Your task to perform on an android device: Add "usb-c to usb-a" to the cart on ebay.com, then select checkout. Image 0: 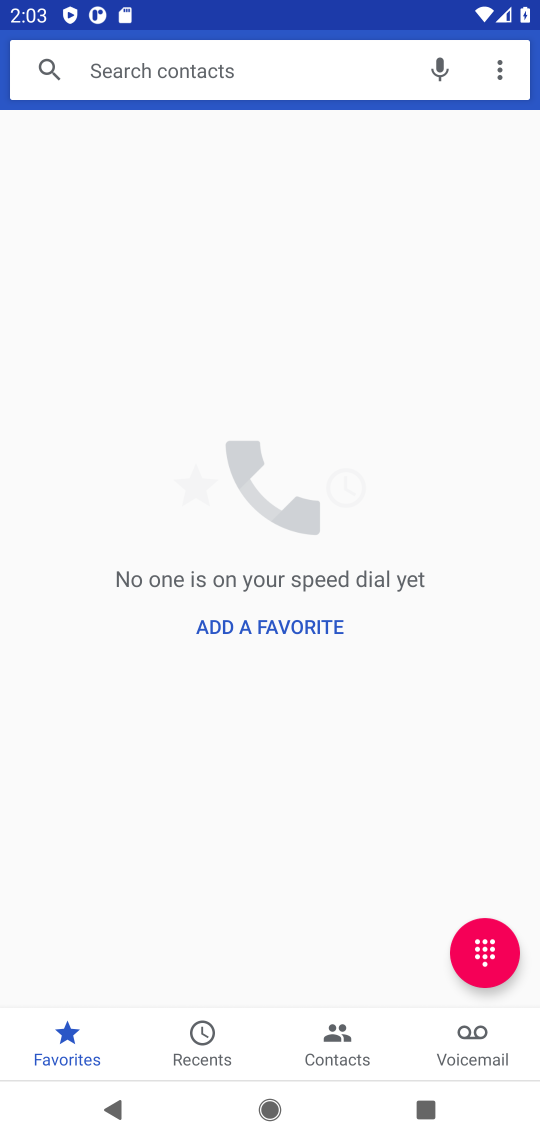
Step 0: press home button
Your task to perform on an android device: Add "usb-c to usb-a" to the cart on ebay.com, then select checkout. Image 1: 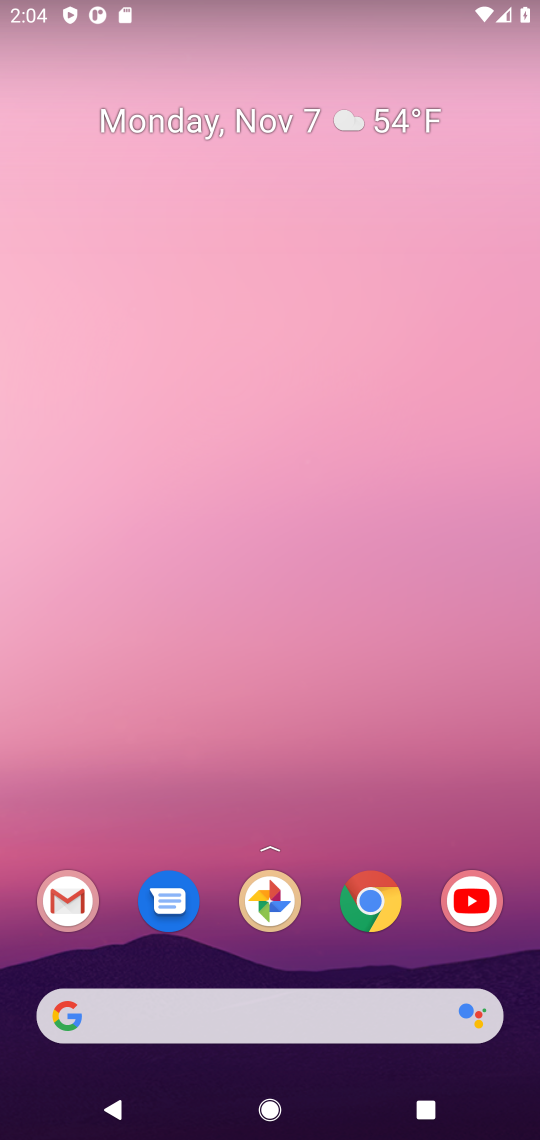
Step 1: click (372, 915)
Your task to perform on an android device: Add "usb-c to usb-a" to the cart on ebay.com, then select checkout. Image 2: 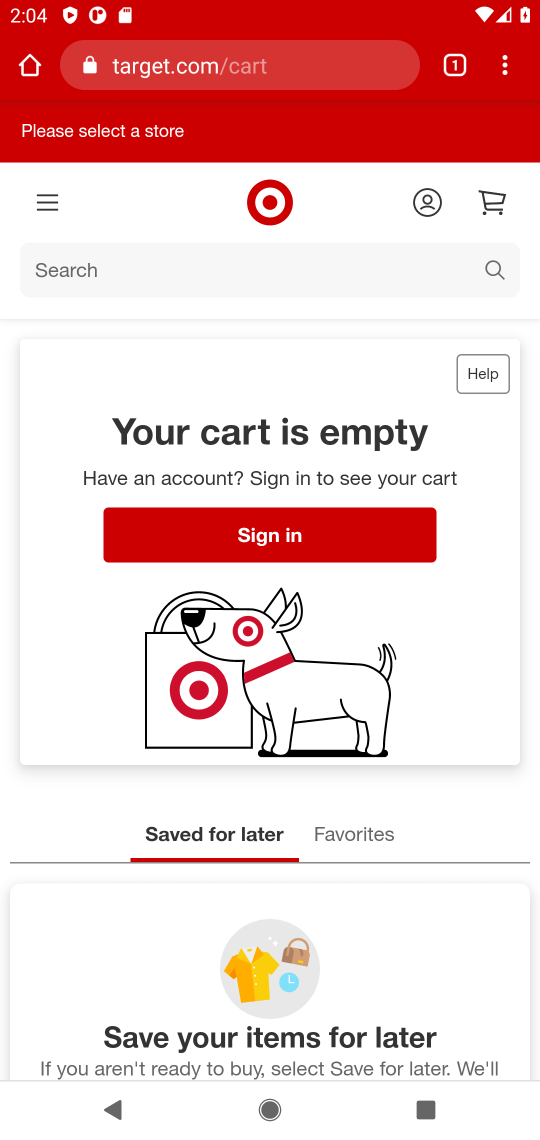
Step 2: click (224, 60)
Your task to perform on an android device: Add "usb-c to usb-a" to the cart on ebay.com, then select checkout. Image 3: 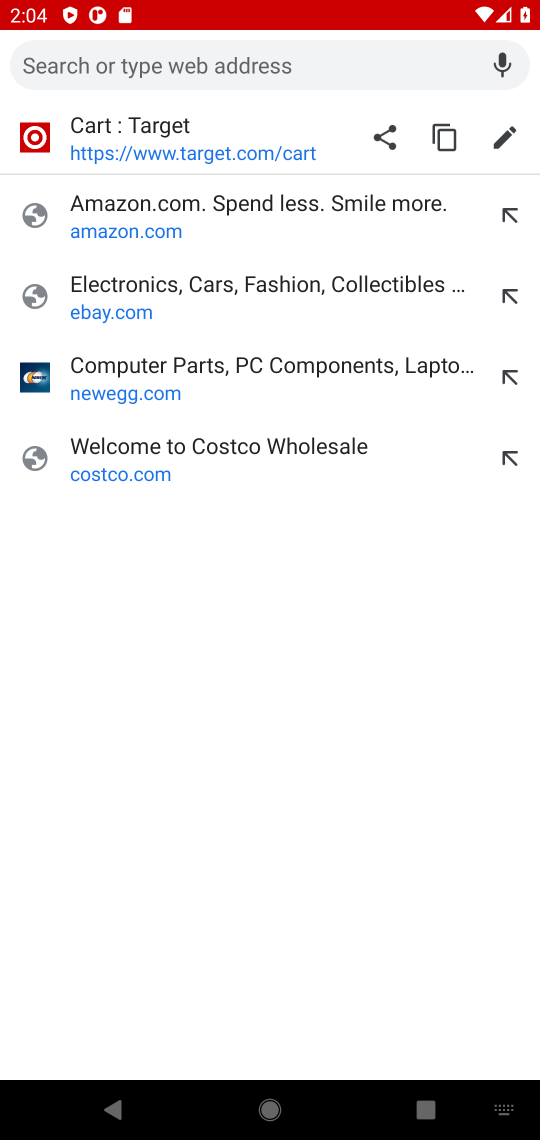
Step 3: type "ebay.com"
Your task to perform on an android device: Add "usb-c to usb-a" to the cart on ebay.com, then select checkout. Image 4: 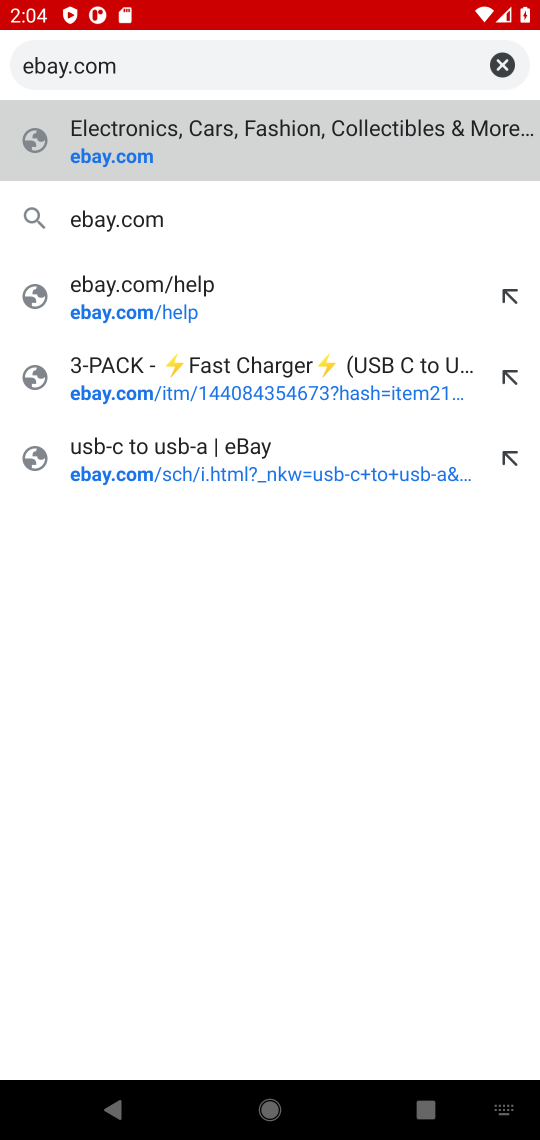
Step 4: click (135, 156)
Your task to perform on an android device: Add "usb-c to usb-a" to the cart on ebay.com, then select checkout. Image 5: 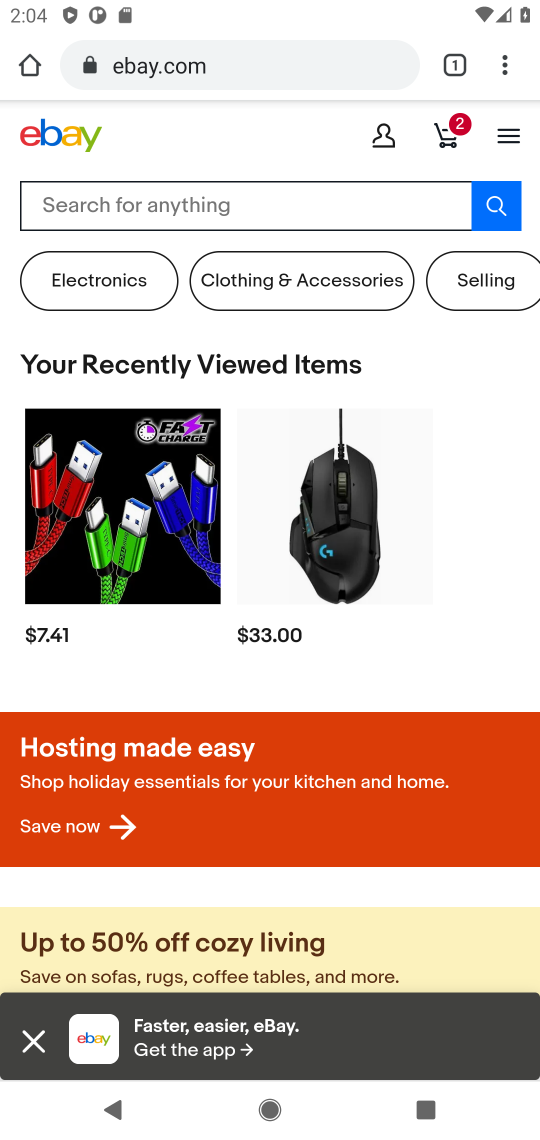
Step 5: click (106, 196)
Your task to perform on an android device: Add "usb-c to usb-a" to the cart on ebay.com, then select checkout. Image 6: 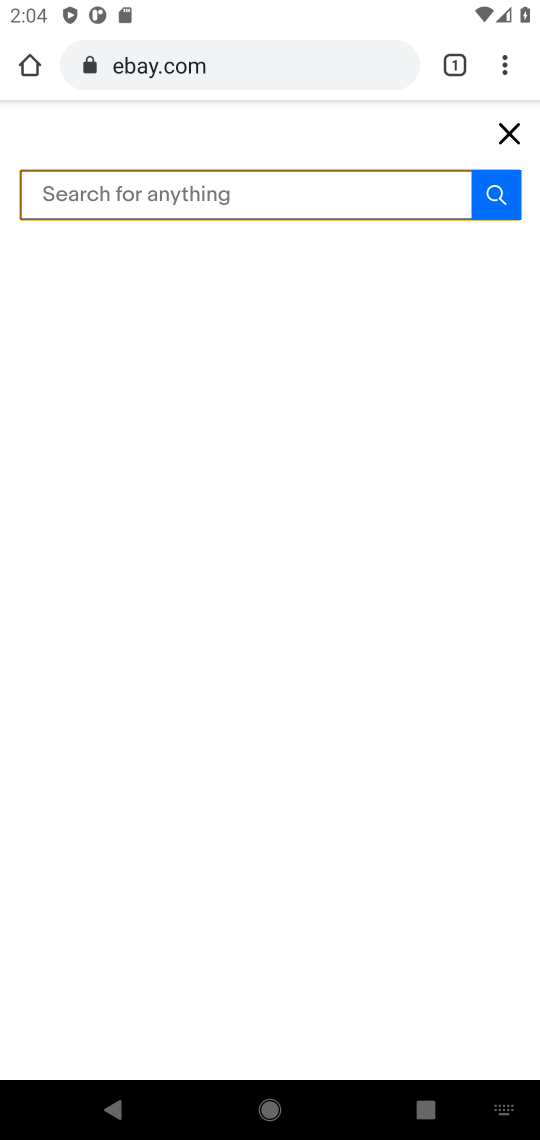
Step 6: type "usb-c to usb-a"
Your task to perform on an android device: Add "usb-c to usb-a" to the cart on ebay.com, then select checkout. Image 7: 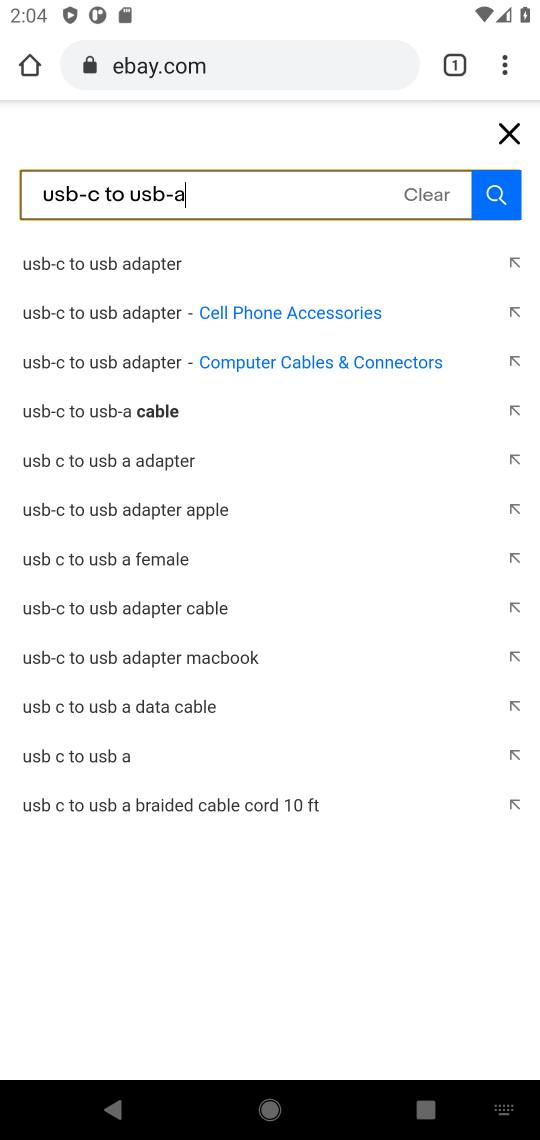
Step 7: click (494, 194)
Your task to perform on an android device: Add "usb-c to usb-a" to the cart on ebay.com, then select checkout. Image 8: 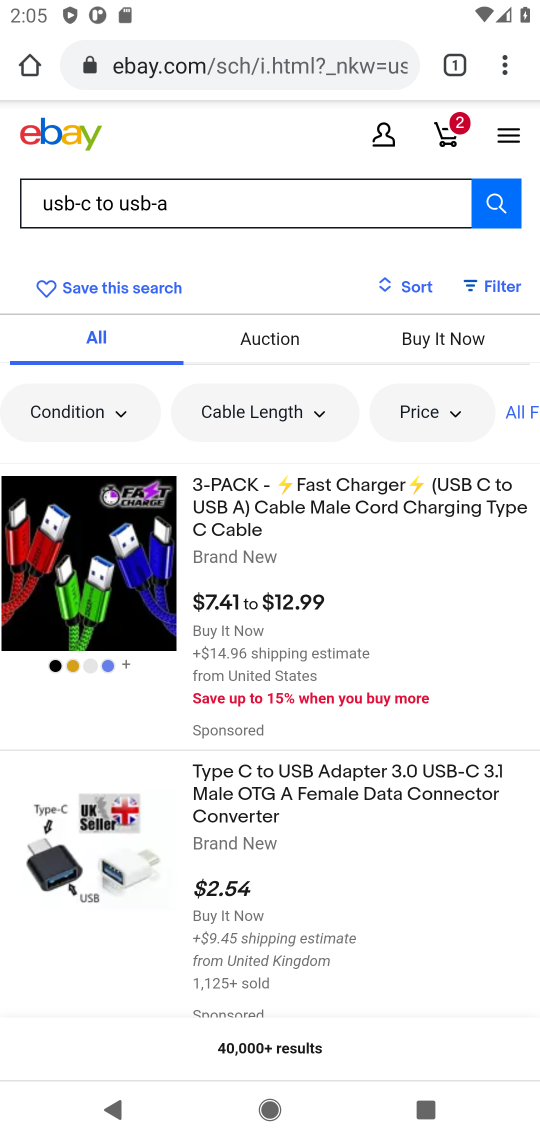
Step 8: click (71, 585)
Your task to perform on an android device: Add "usb-c to usb-a" to the cart on ebay.com, then select checkout. Image 9: 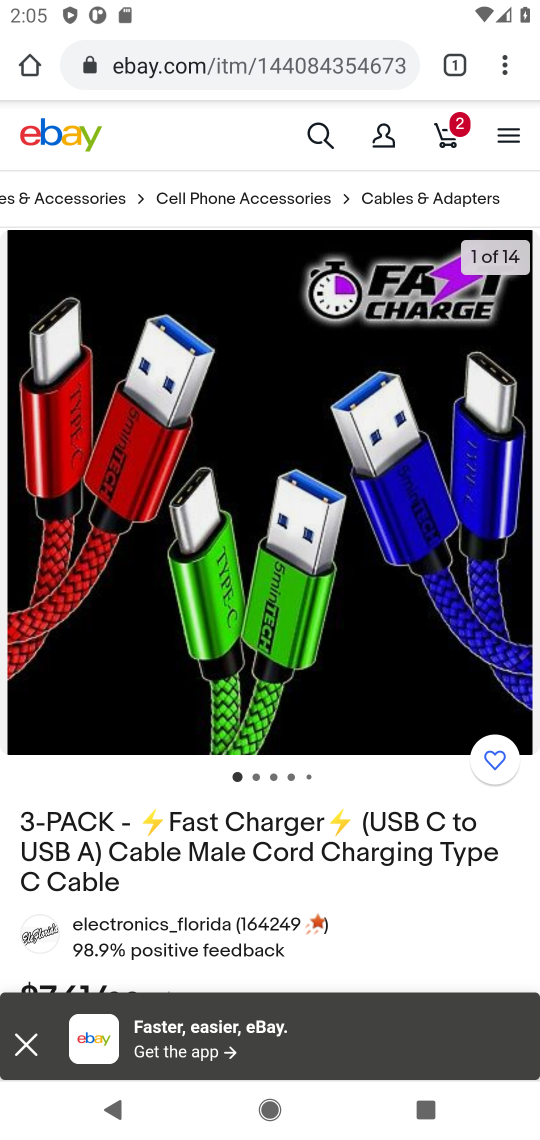
Step 9: drag from (261, 828) to (281, 347)
Your task to perform on an android device: Add "usb-c to usb-a" to the cart on ebay.com, then select checkout. Image 10: 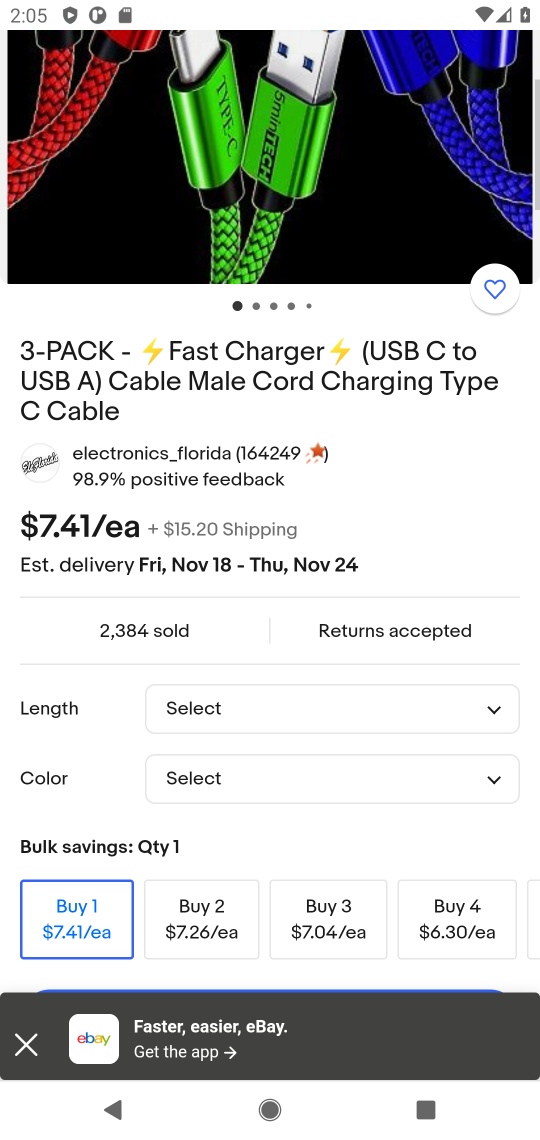
Step 10: drag from (245, 872) to (261, 361)
Your task to perform on an android device: Add "usb-c to usb-a" to the cart on ebay.com, then select checkout. Image 11: 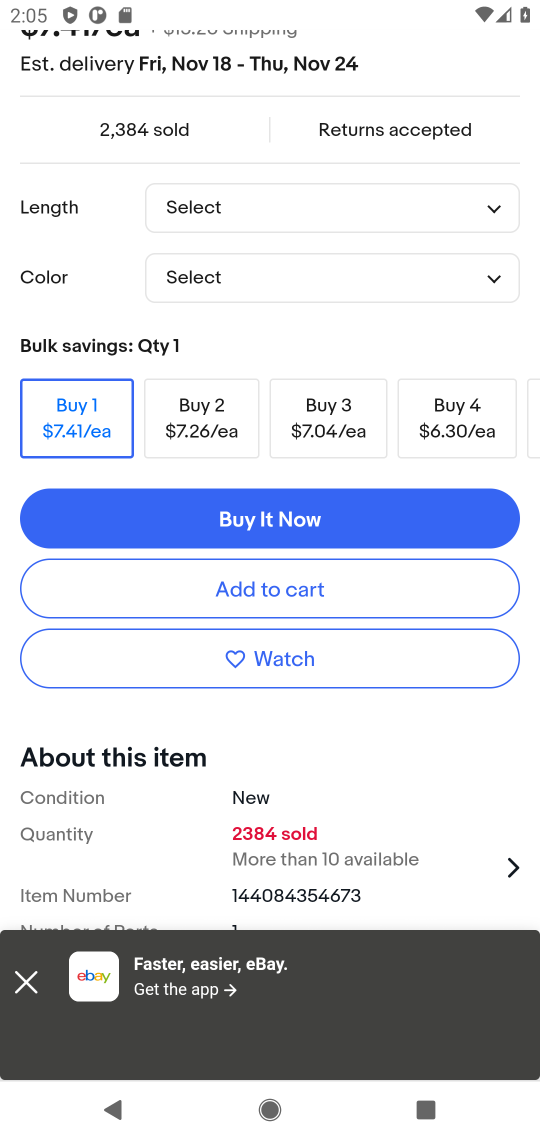
Step 11: click (232, 589)
Your task to perform on an android device: Add "usb-c to usb-a" to the cart on ebay.com, then select checkout. Image 12: 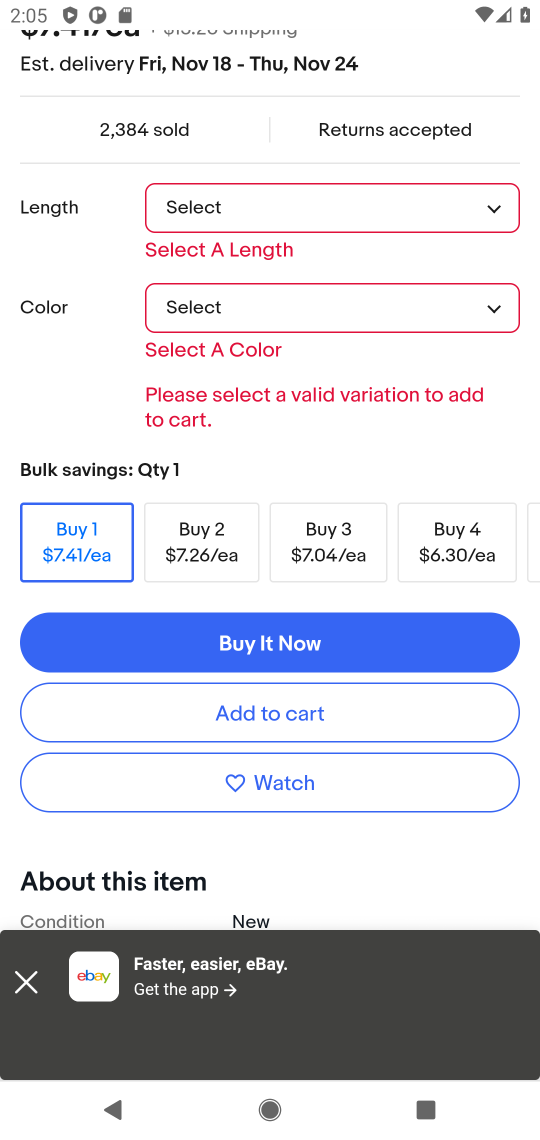
Step 12: click (498, 311)
Your task to perform on an android device: Add "usb-c to usb-a" to the cart on ebay.com, then select checkout. Image 13: 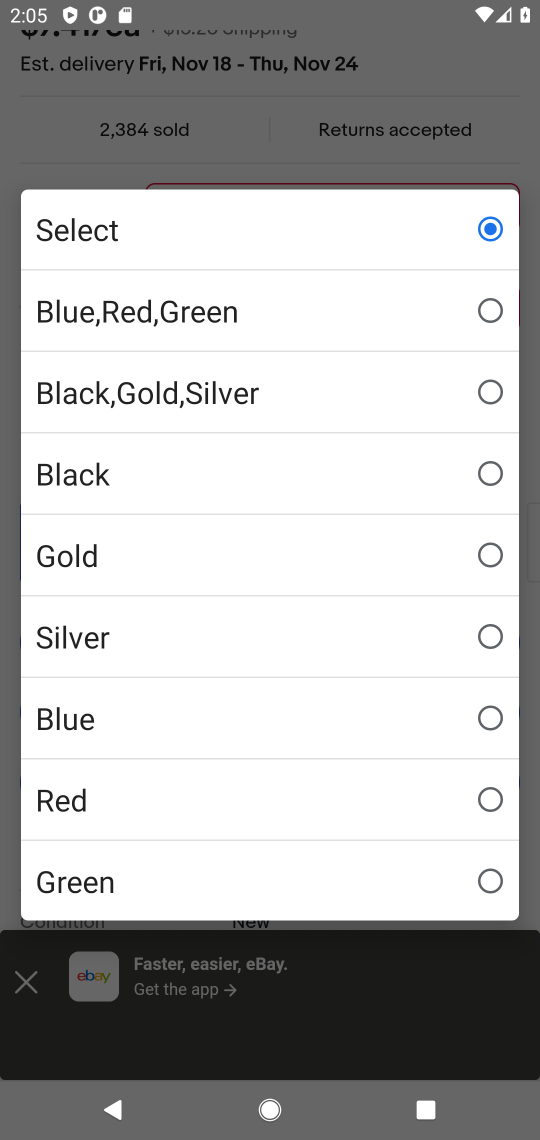
Step 13: click (69, 487)
Your task to perform on an android device: Add "usb-c to usb-a" to the cart on ebay.com, then select checkout. Image 14: 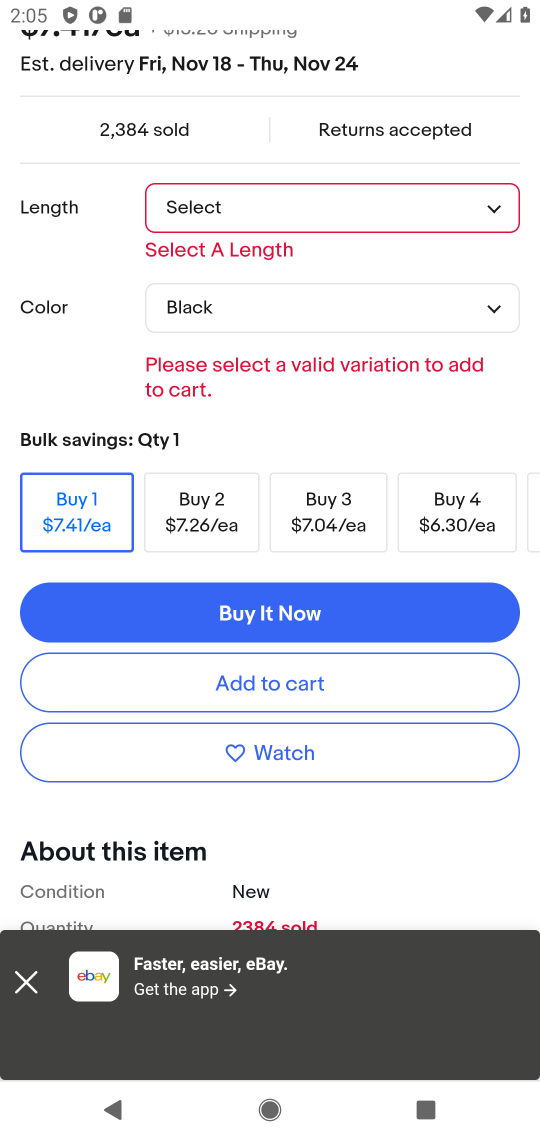
Step 14: click (503, 210)
Your task to perform on an android device: Add "usb-c to usb-a" to the cart on ebay.com, then select checkout. Image 15: 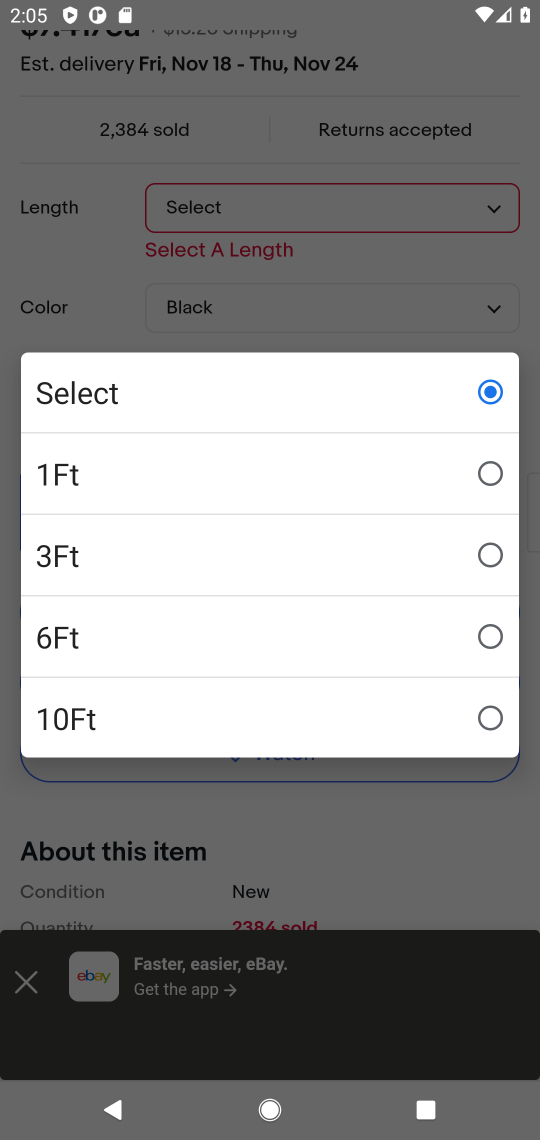
Step 15: click (53, 489)
Your task to perform on an android device: Add "usb-c to usb-a" to the cart on ebay.com, then select checkout. Image 16: 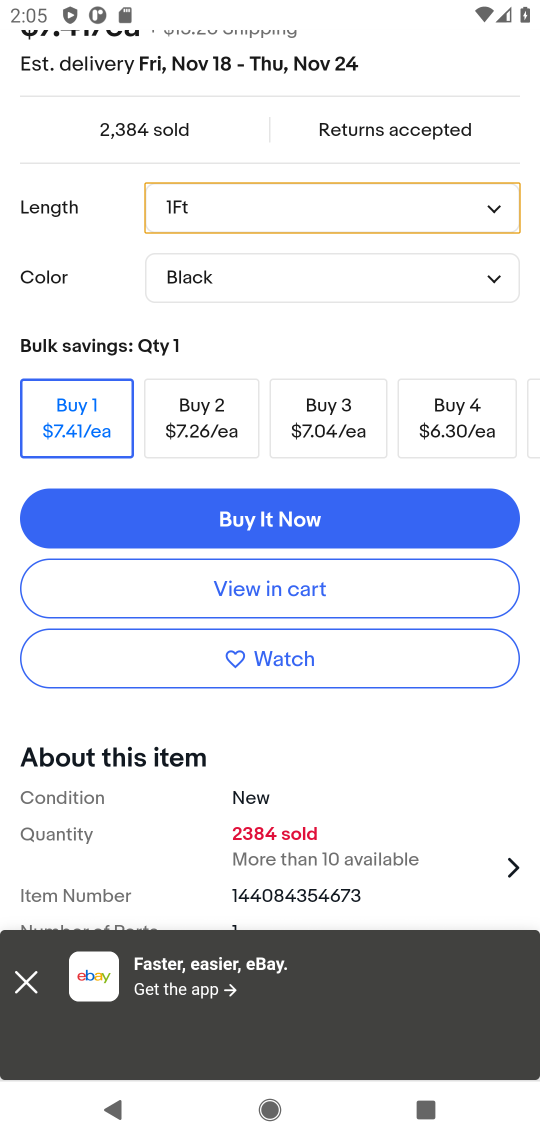
Step 16: click (257, 588)
Your task to perform on an android device: Add "usb-c to usb-a" to the cart on ebay.com, then select checkout. Image 17: 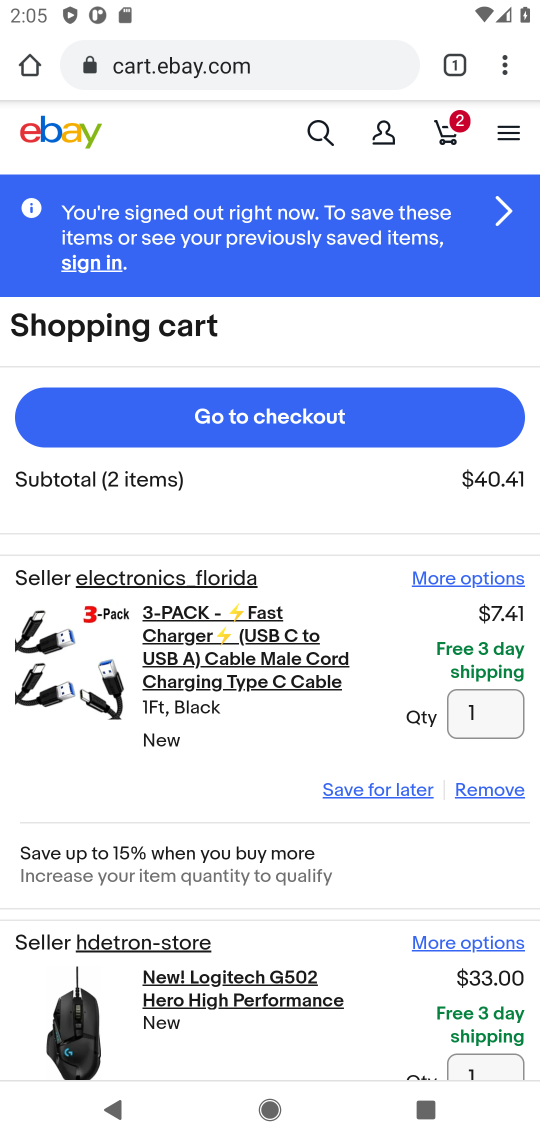
Step 17: click (273, 422)
Your task to perform on an android device: Add "usb-c to usb-a" to the cart on ebay.com, then select checkout. Image 18: 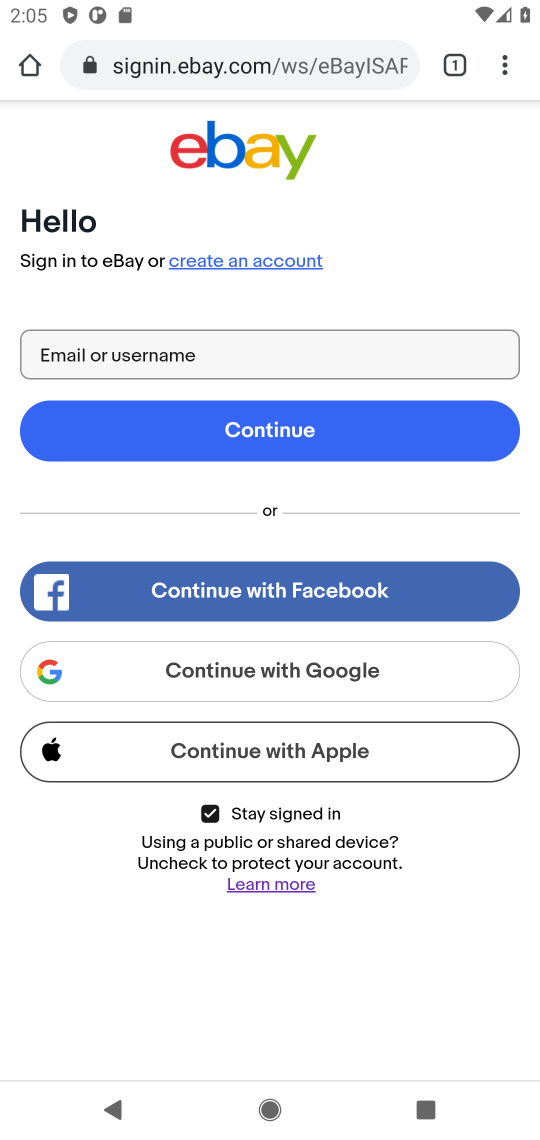
Step 18: task complete